Your task to perform on an android device: Add "logitech g933" to the cart on amazon.com, then select checkout. Image 0: 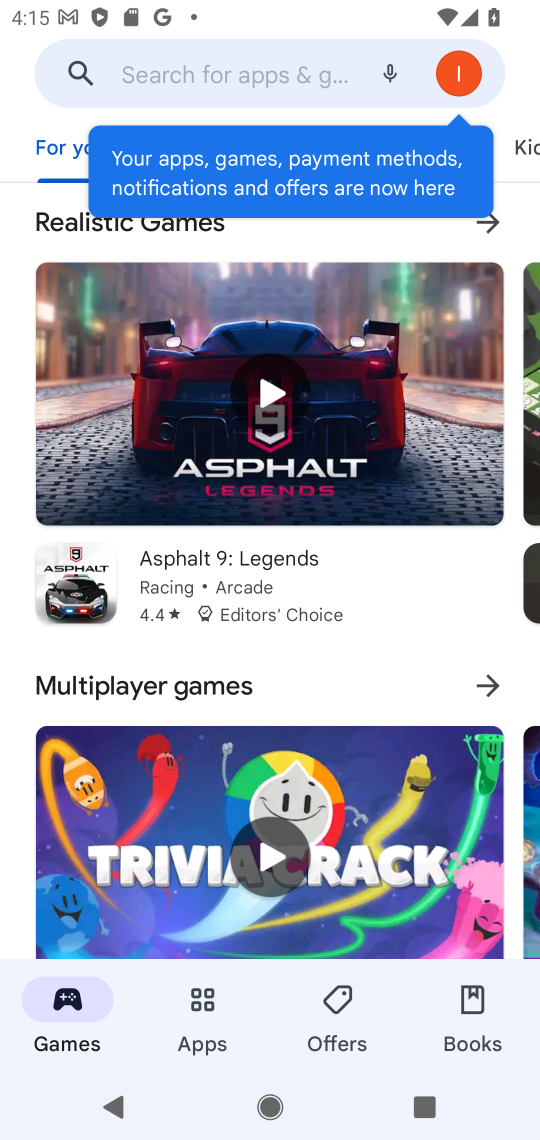
Step 0: press home button
Your task to perform on an android device: Add "logitech g933" to the cart on amazon.com, then select checkout. Image 1: 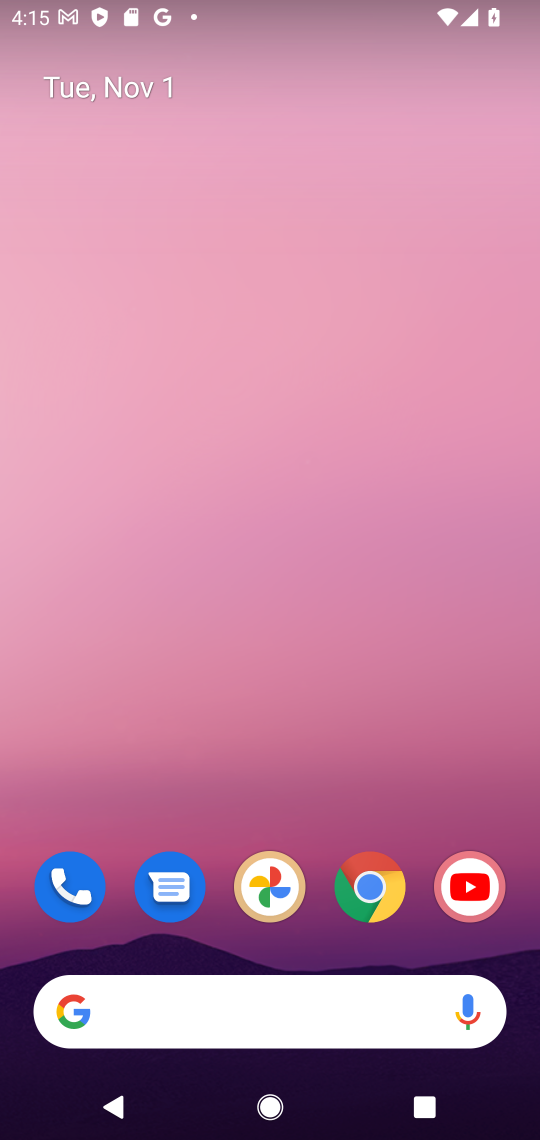
Step 1: drag from (340, 923) to (346, 181)
Your task to perform on an android device: Add "logitech g933" to the cart on amazon.com, then select checkout. Image 2: 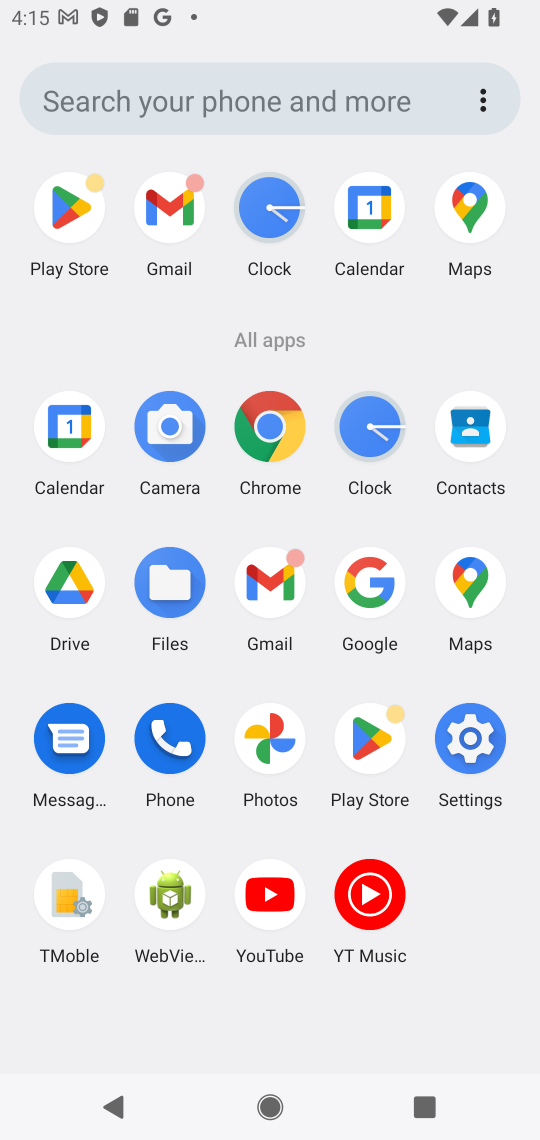
Step 2: click (274, 428)
Your task to perform on an android device: Add "logitech g933" to the cart on amazon.com, then select checkout. Image 3: 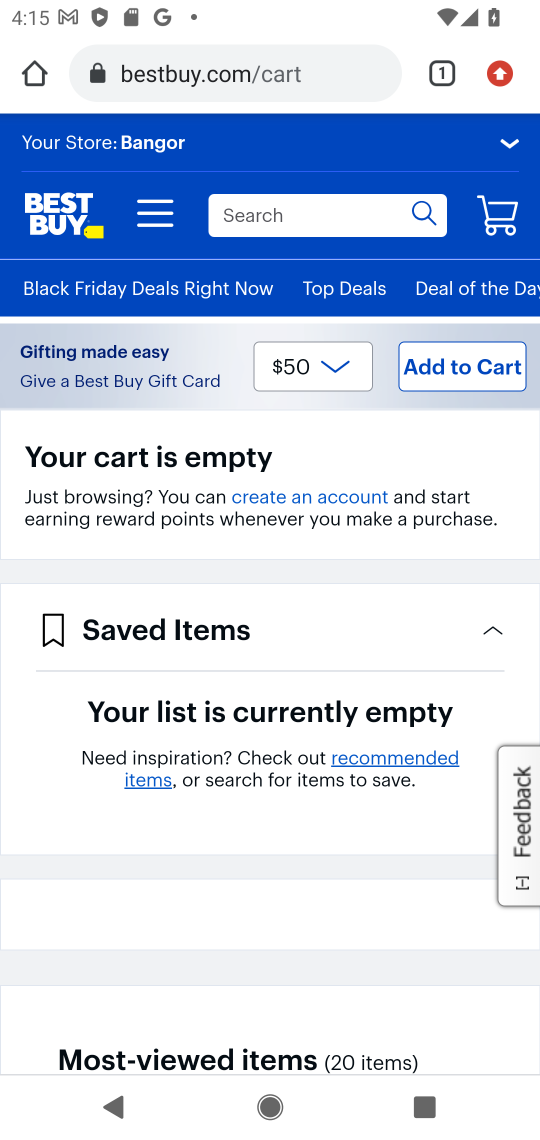
Step 3: click (289, 76)
Your task to perform on an android device: Add "logitech g933" to the cart on amazon.com, then select checkout. Image 4: 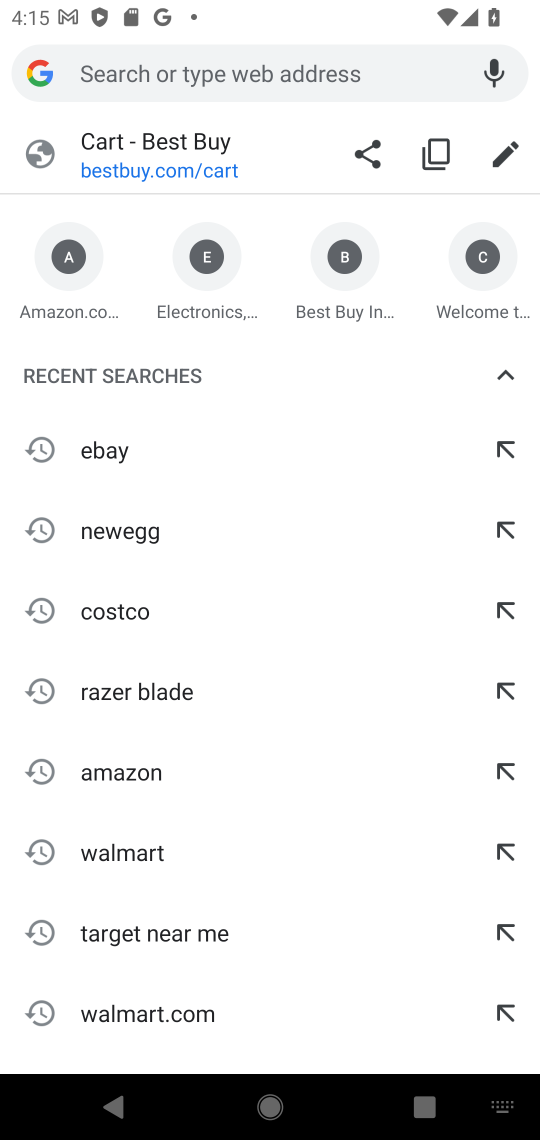
Step 4: type "amazon.com"
Your task to perform on an android device: Add "logitech g933" to the cart on amazon.com, then select checkout. Image 5: 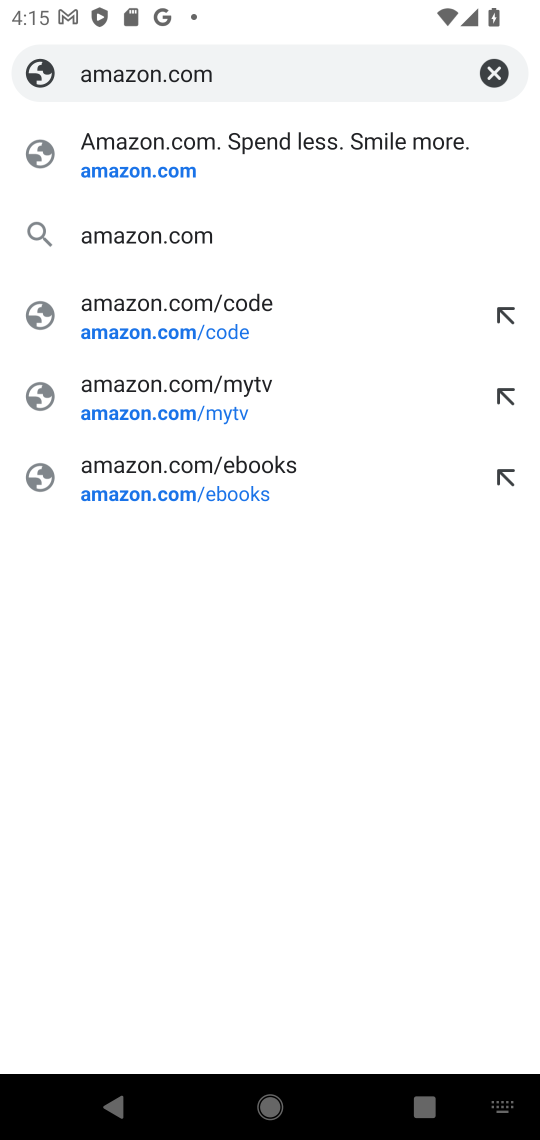
Step 5: press enter
Your task to perform on an android device: Add "logitech g933" to the cart on amazon.com, then select checkout. Image 6: 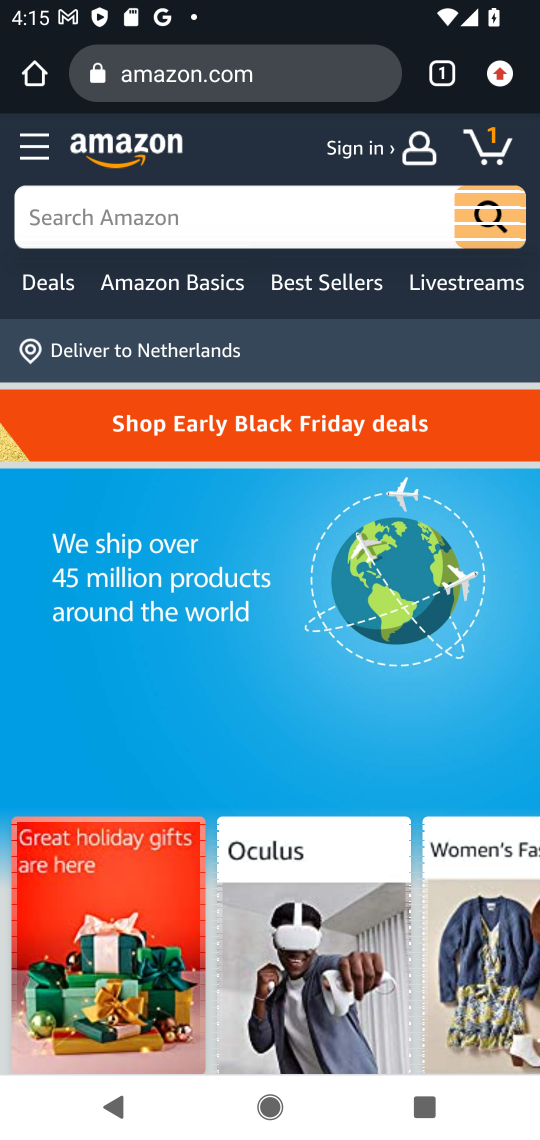
Step 6: click (340, 215)
Your task to perform on an android device: Add "logitech g933" to the cart on amazon.com, then select checkout. Image 7: 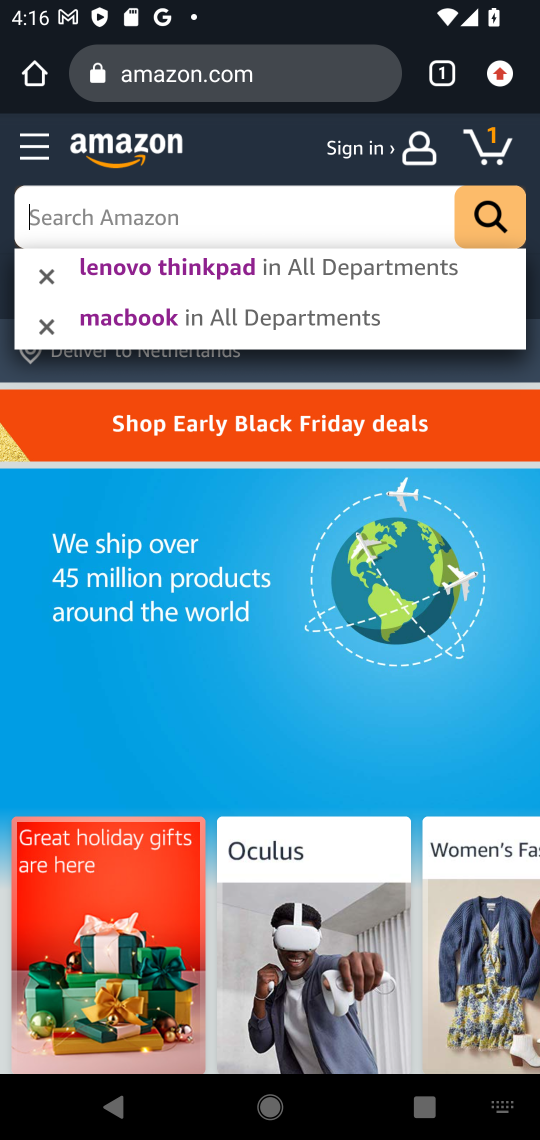
Step 7: type "logitech g933"
Your task to perform on an android device: Add "logitech g933" to the cart on amazon.com, then select checkout. Image 8: 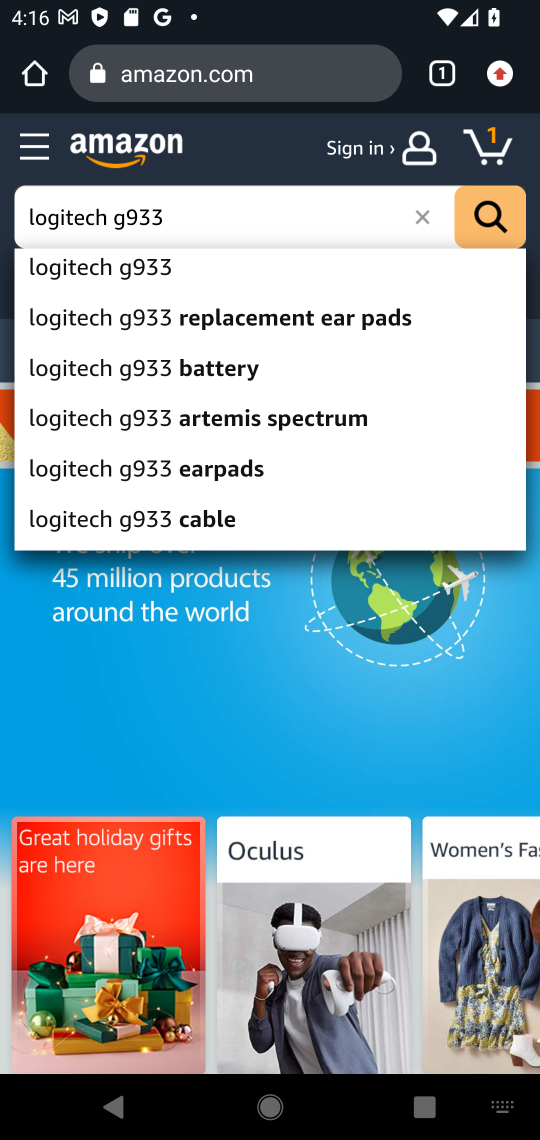
Step 8: press enter
Your task to perform on an android device: Add "logitech g933" to the cart on amazon.com, then select checkout. Image 9: 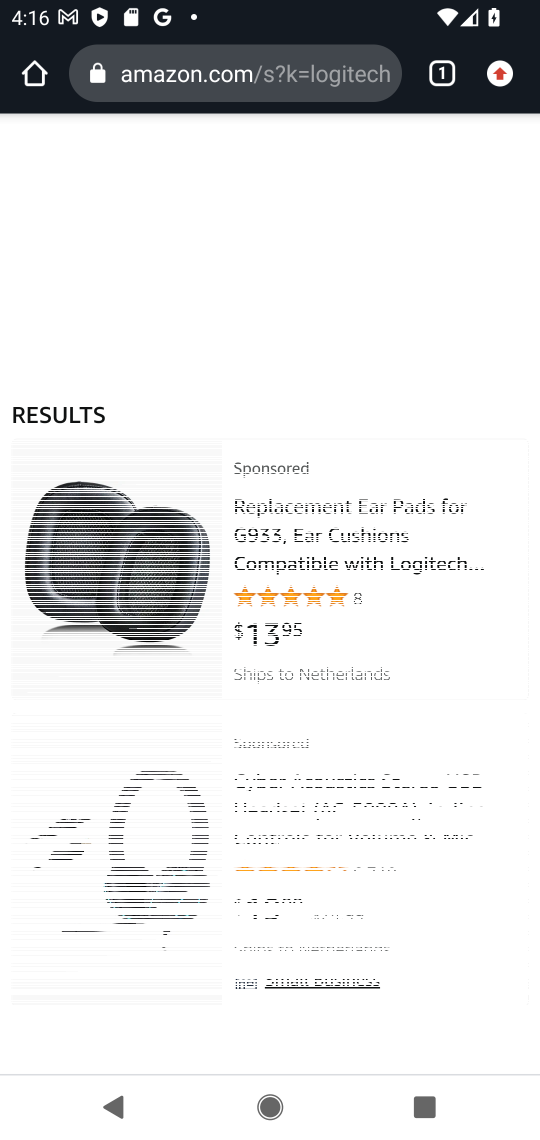
Step 9: drag from (416, 837) to (377, 348)
Your task to perform on an android device: Add "logitech g933" to the cart on amazon.com, then select checkout. Image 10: 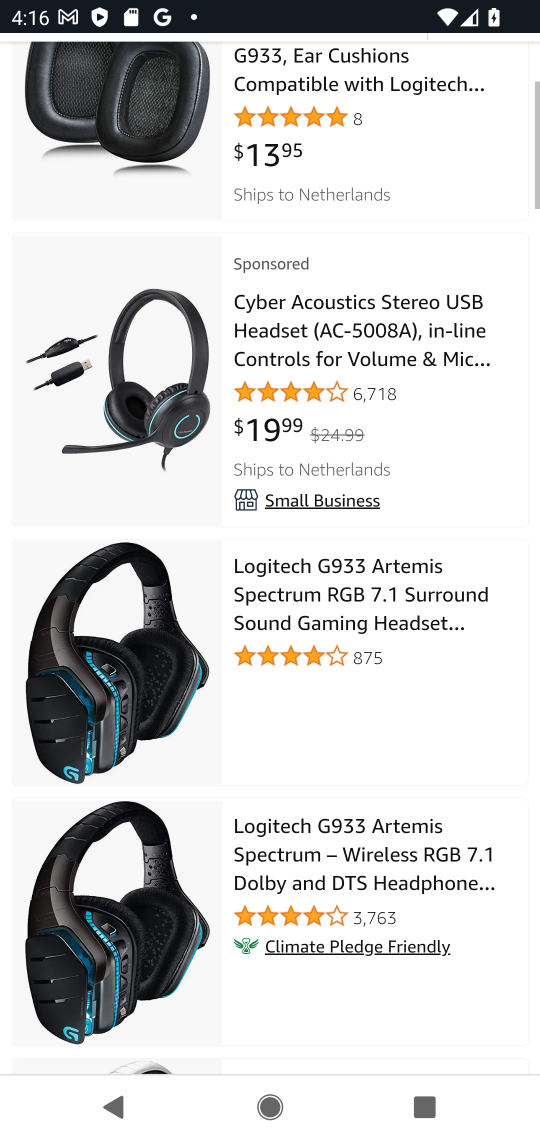
Step 10: drag from (276, 781) to (303, 627)
Your task to perform on an android device: Add "logitech g933" to the cart on amazon.com, then select checkout. Image 11: 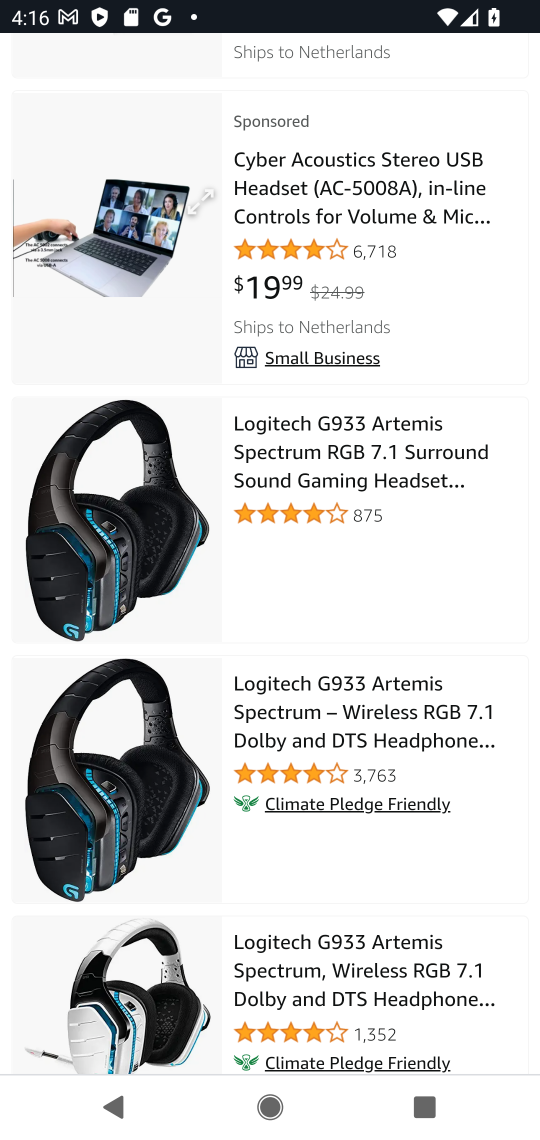
Step 11: click (369, 445)
Your task to perform on an android device: Add "logitech g933" to the cart on amazon.com, then select checkout. Image 12: 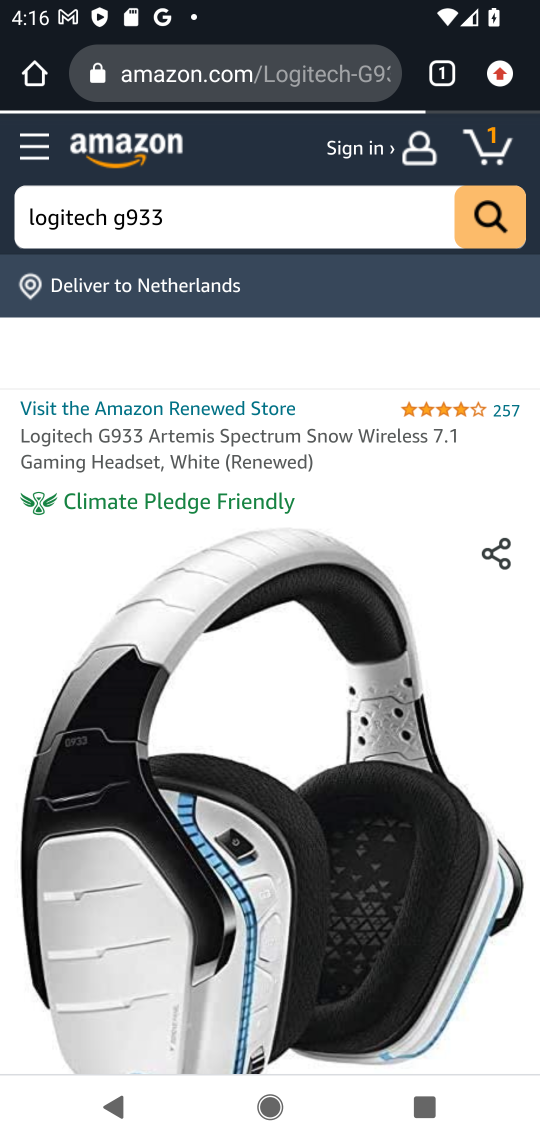
Step 12: task complete